Your task to perform on an android device: turn on notifications settings in the gmail app Image 0: 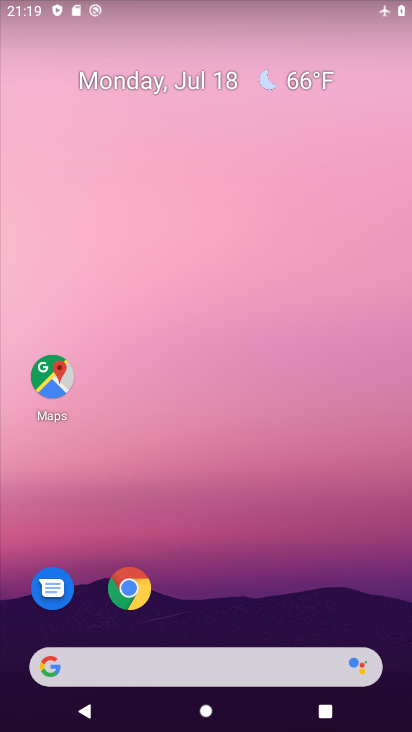
Step 0: click (406, 461)
Your task to perform on an android device: turn on notifications settings in the gmail app Image 1: 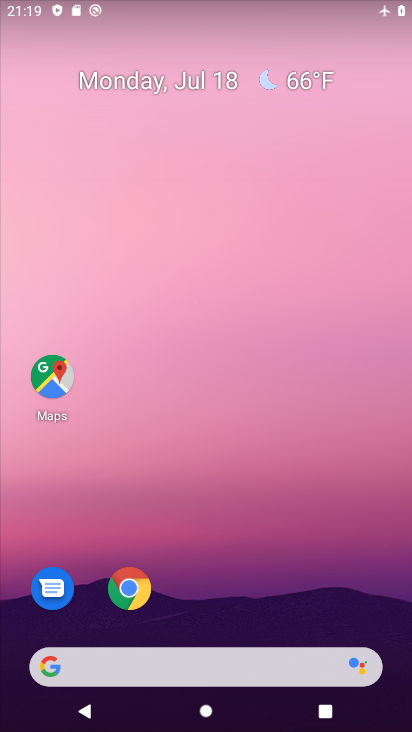
Step 1: drag from (251, 548) to (403, 32)
Your task to perform on an android device: turn on notifications settings in the gmail app Image 2: 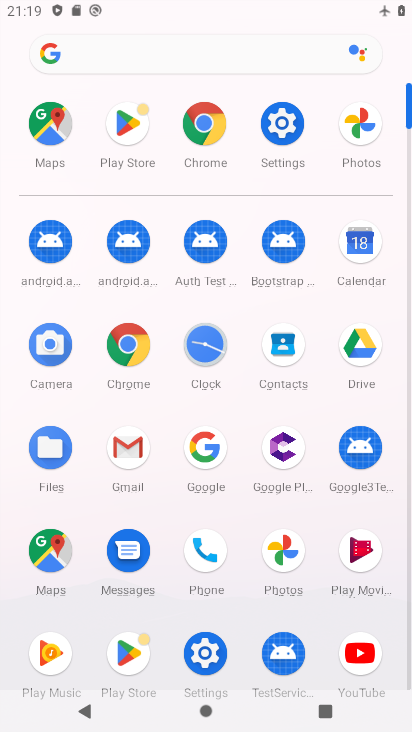
Step 2: click (131, 437)
Your task to perform on an android device: turn on notifications settings in the gmail app Image 3: 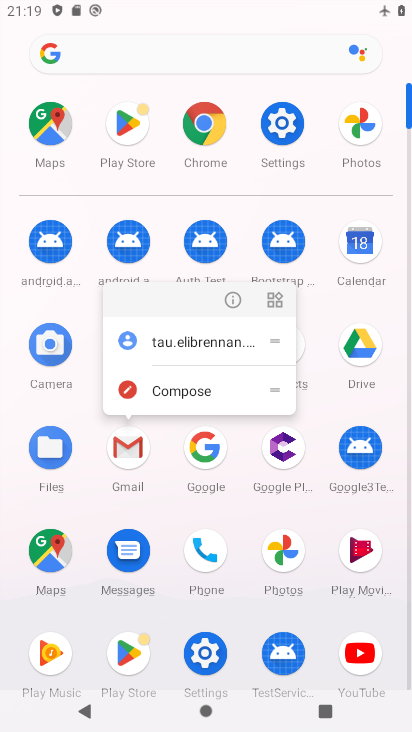
Step 3: click (230, 304)
Your task to perform on an android device: turn on notifications settings in the gmail app Image 4: 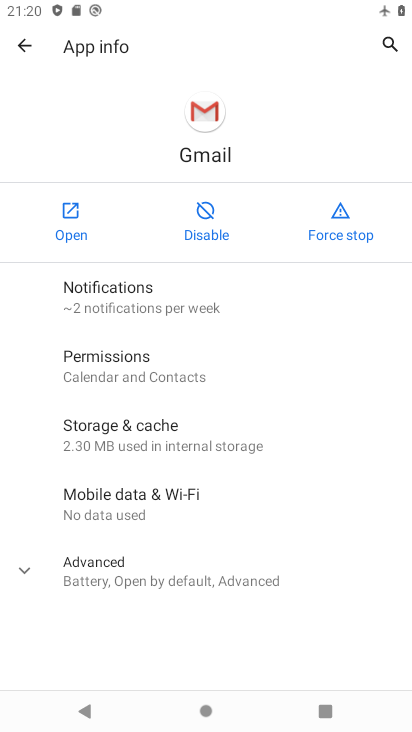
Step 4: task complete